Your task to perform on an android device: Open Google Maps and go to "Timeline" Image 0: 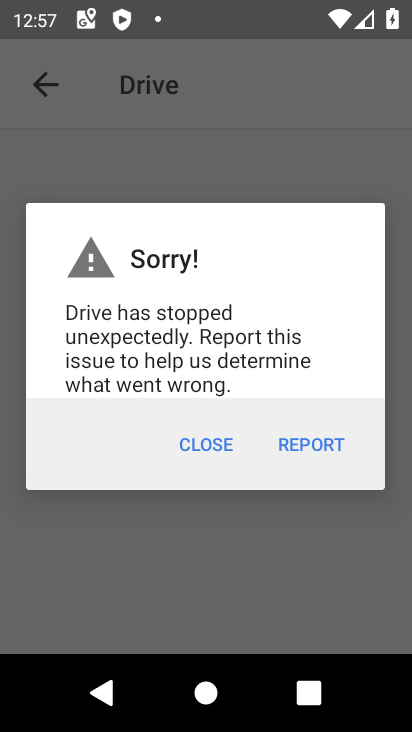
Step 0: press home button
Your task to perform on an android device: Open Google Maps and go to "Timeline" Image 1: 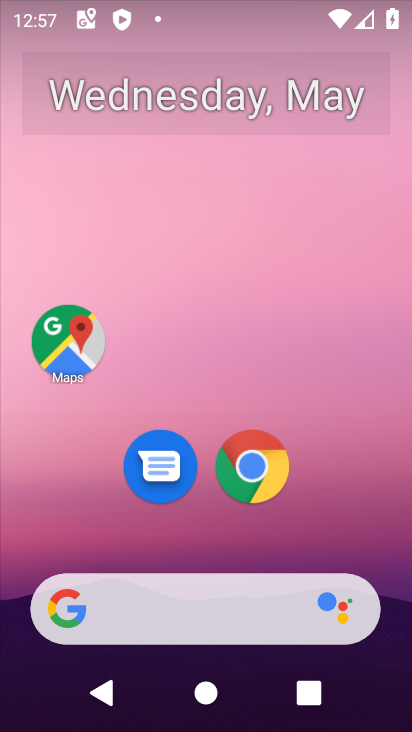
Step 1: click (73, 339)
Your task to perform on an android device: Open Google Maps and go to "Timeline" Image 2: 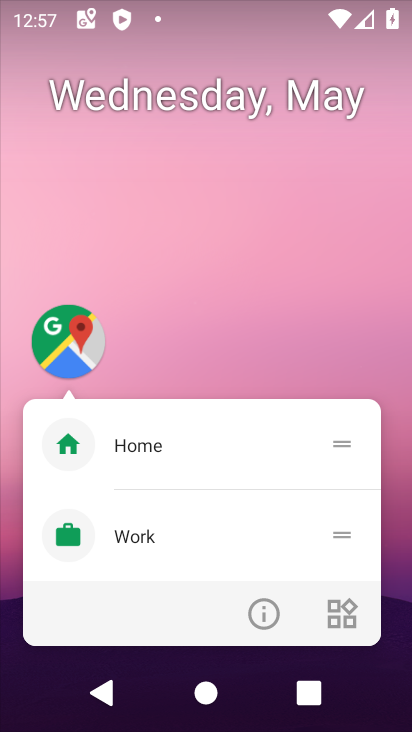
Step 2: click (75, 346)
Your task to perform on an android device: Open Google Maps and go to "Timeline" Image 3: 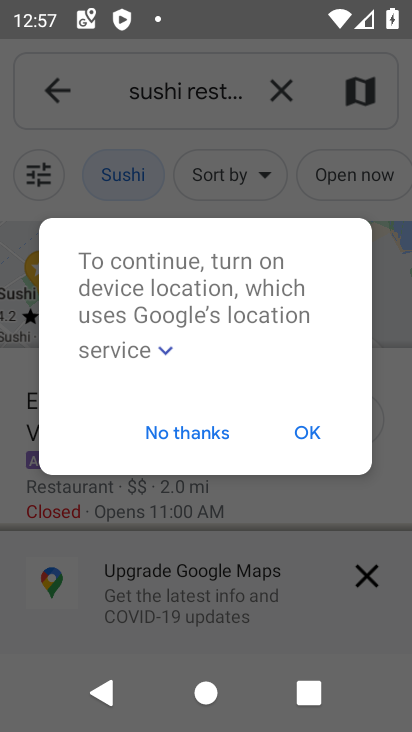
Step 3: click (202, 422)
Your task to perform on an android device: Open Google Maps and go to "Timeline" Image 4: 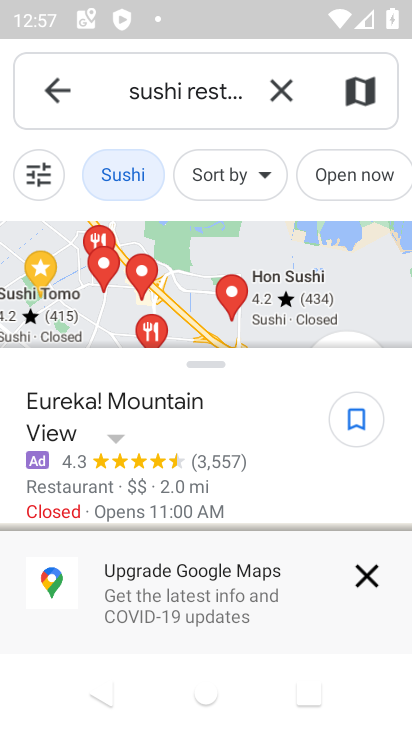
Step 4: click (284, 90)
Your task to perform on an android device: Open Google Maps and go to "Timeline" Image 5: 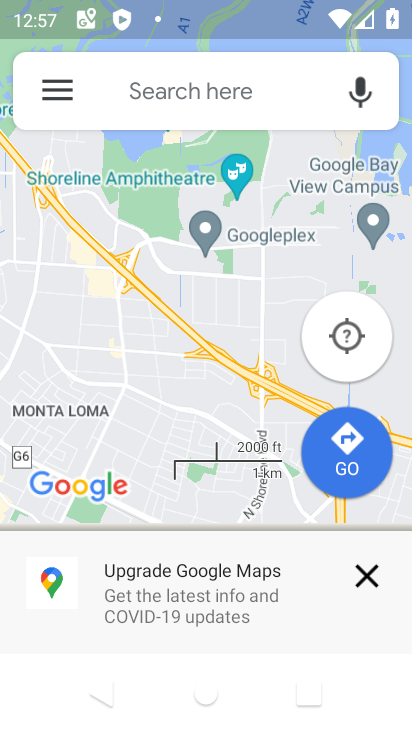
Step 5: click (55, 93)
Your task to perform on an android device: Open Google Maps and go to "Timeline" Image 6: 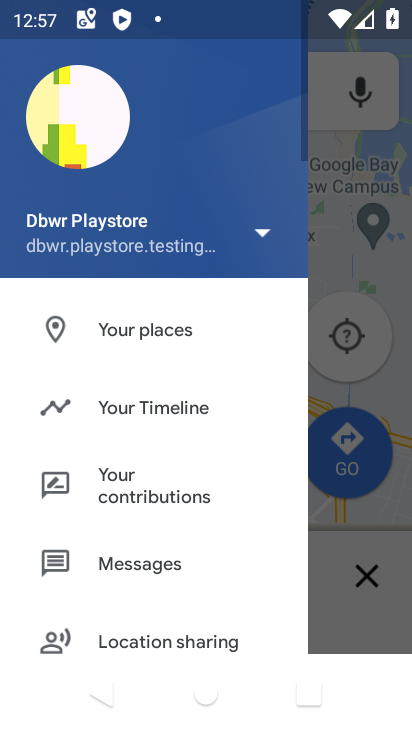
Step 6: click (114, 409)
Your task to perform on an android device: Open Google Maps and go to "Timeline" Image 7: 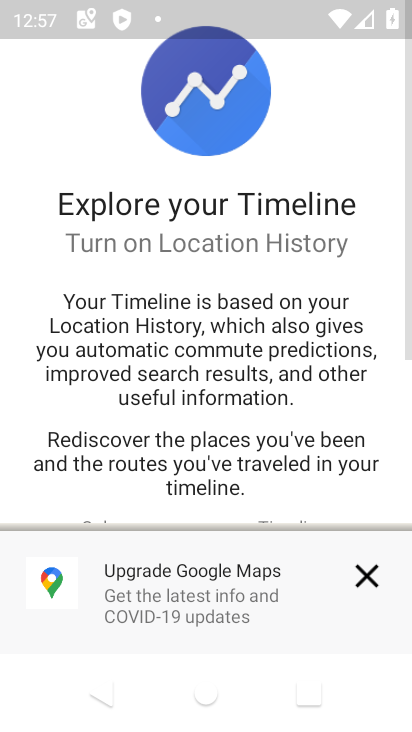
Step 7: drag from (226, 459) to (265, 113)
Your task to perform on an android device: Open Google Maps and go to "Timeline" Image 8: 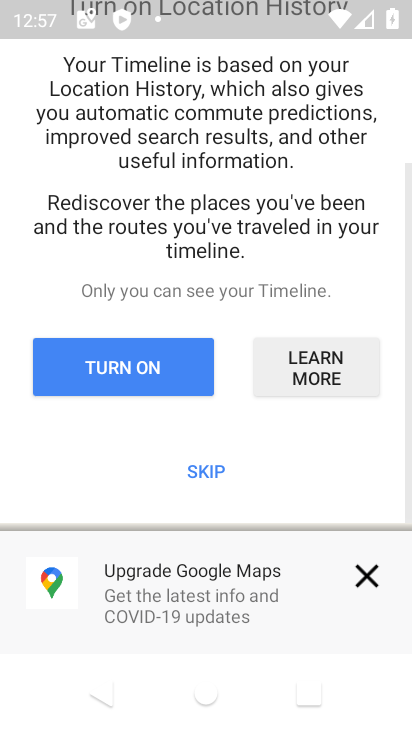
Step 8: click (206, 479)
Your task to perform on an android device: Open Google Maps and go to "Timeline" Image 9: 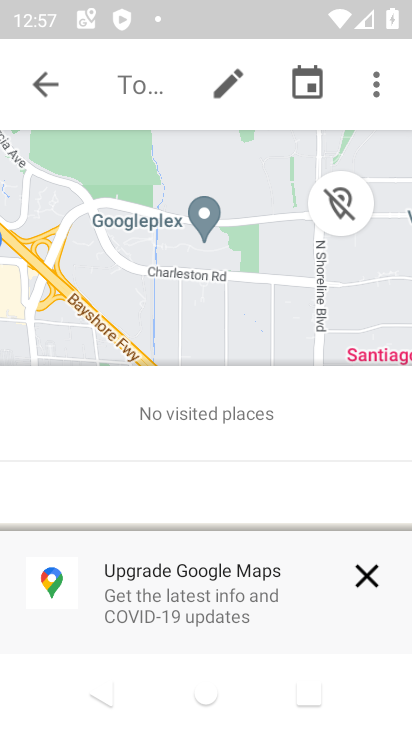
Step 9: task complete